Your task to perform on an android device: Open Wikipedia Image 0: 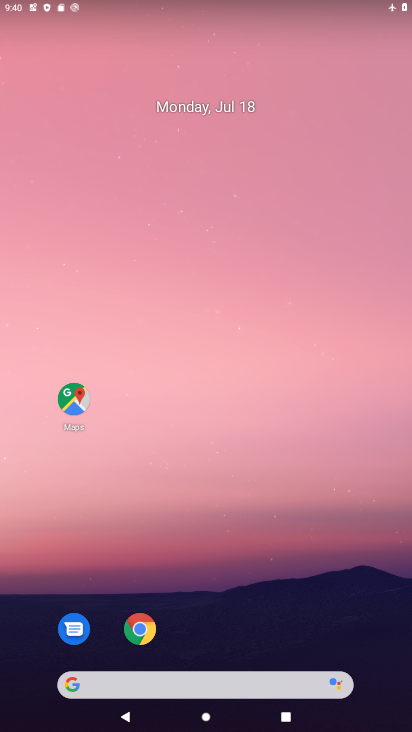
Step 0: drag from (322, 594) to (92, 38)
Your task to perform on an android device: Open Wikipedia Image 1: 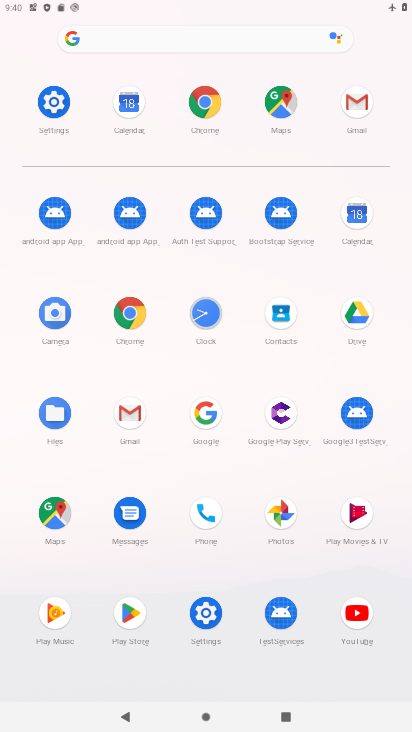
Step 1: click (204, 103)
Your task to perform on an android device: Open Wikipedia Image 2: 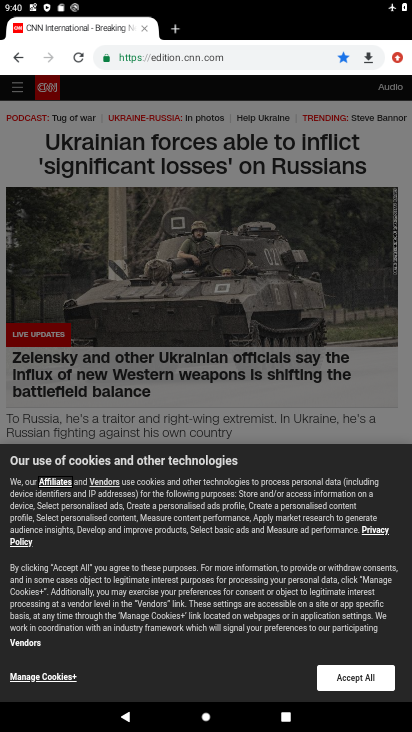
Step 2: click (206, 63)
Your task to perform on an android device: Open Wikipedia Image 3: 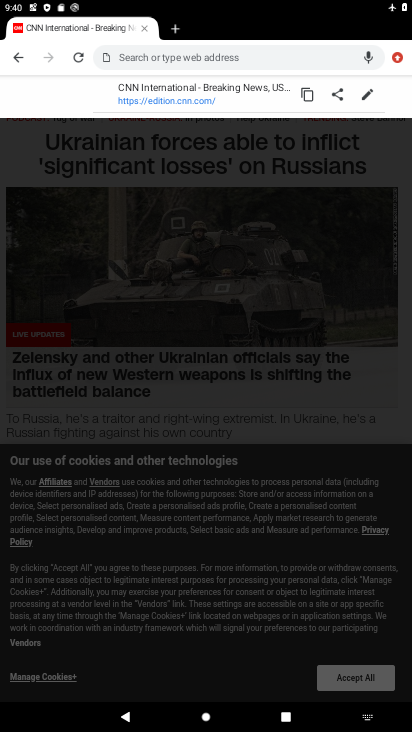
Step 3: type "wikipedia"
Your task to perform on an android device: Open Wikipedia Image 4: 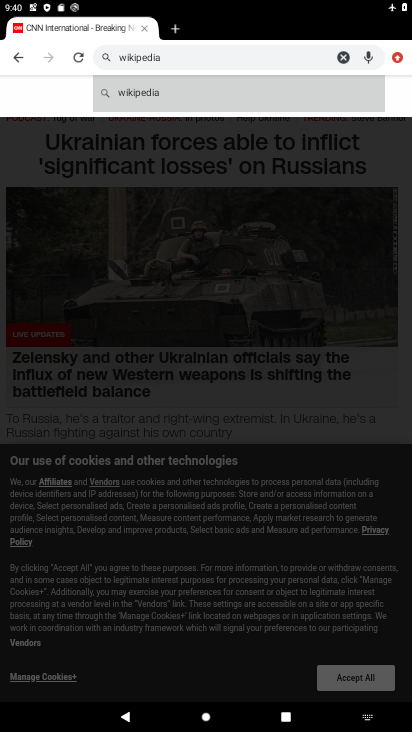
Step 4: click (138, 94)
Your task to perform on an android device: Open Wikipedia Image 5: 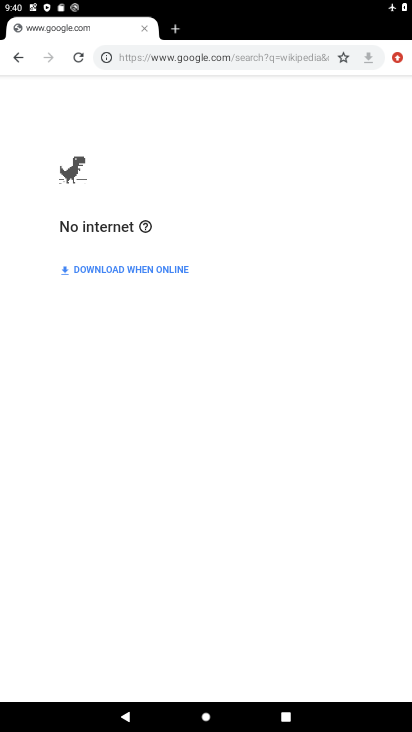
Step 5: task complete